Your task to perform on an android device: Who is the prime minister of the United Kingdom? Image 0: 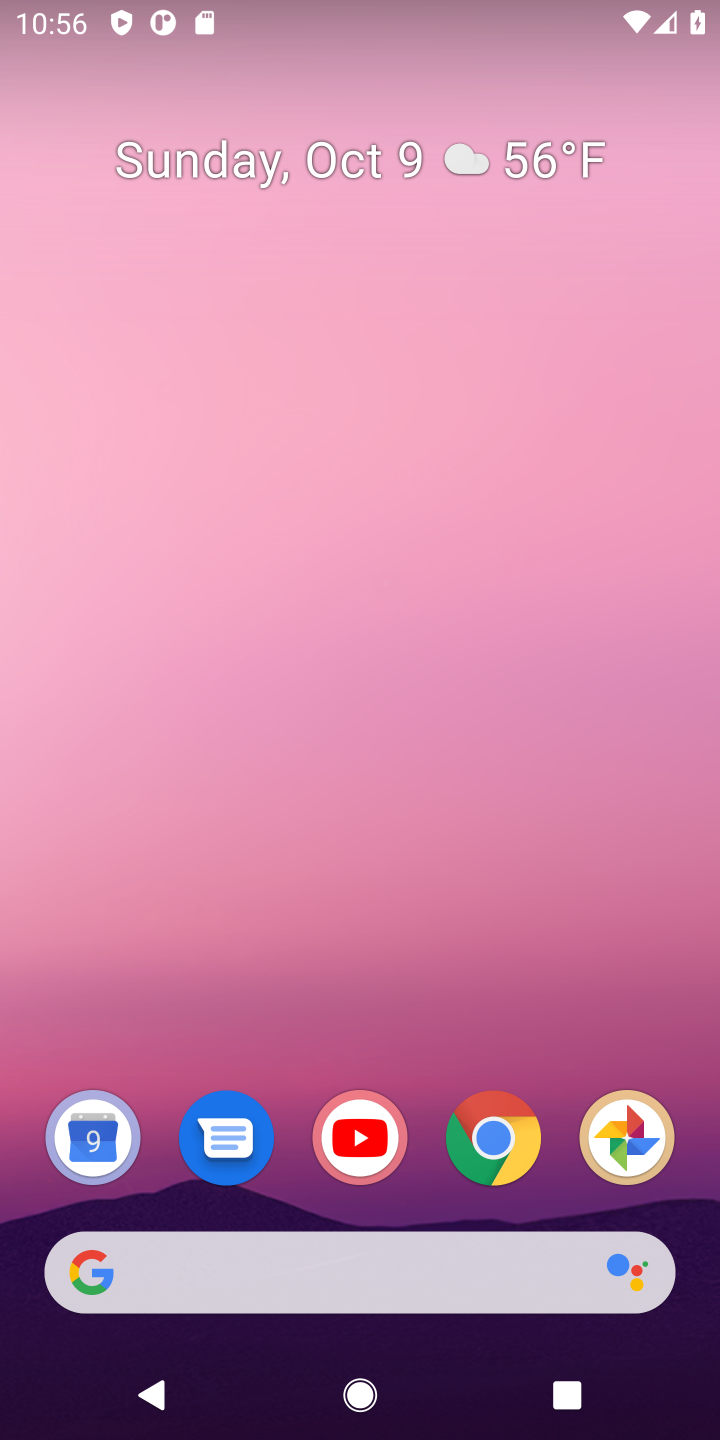
Step 0: drag from (417, 1044) to (567, 21)
Your task to perform on an android device: Who is the prime minister of the United Kingdom? Image 1: 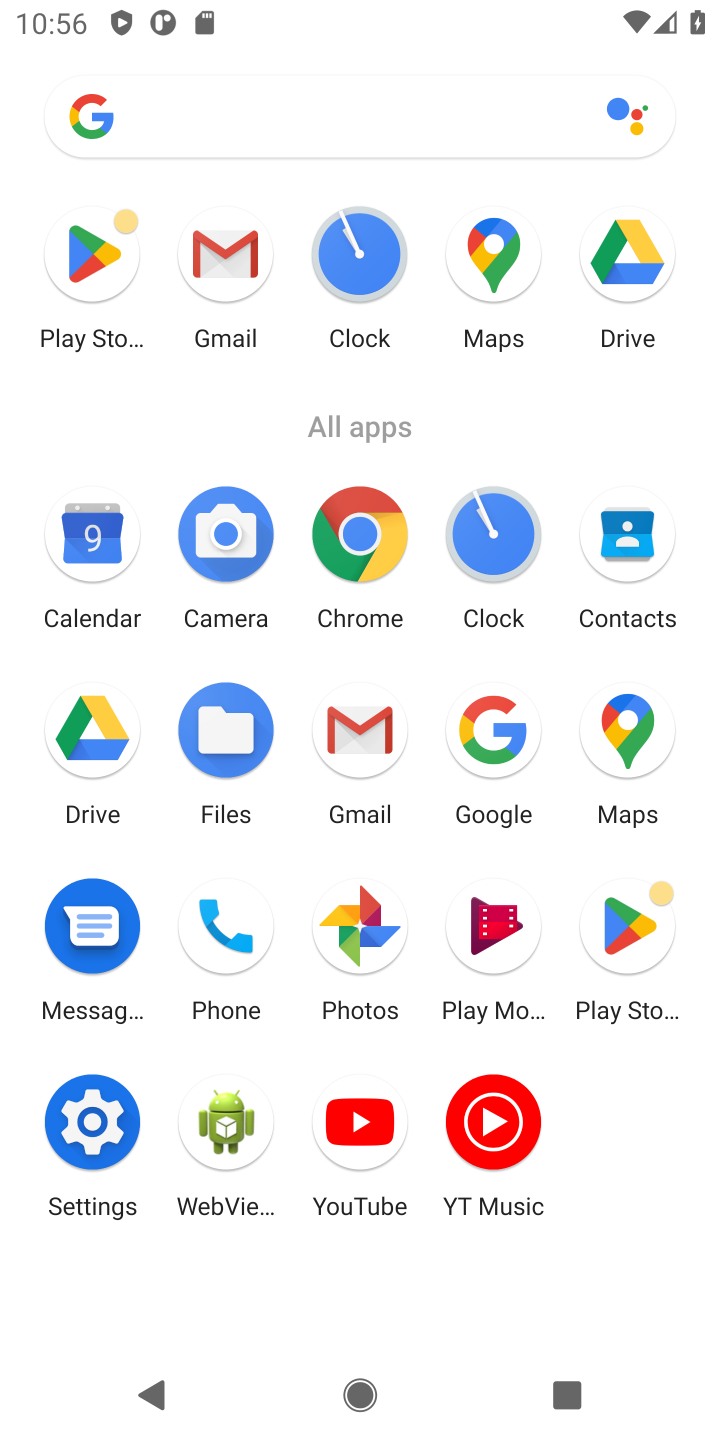
Step 1: click (357, 535)
Your task to perform on an android device: Who is the prime minister of the United Kingdom? Image 2: 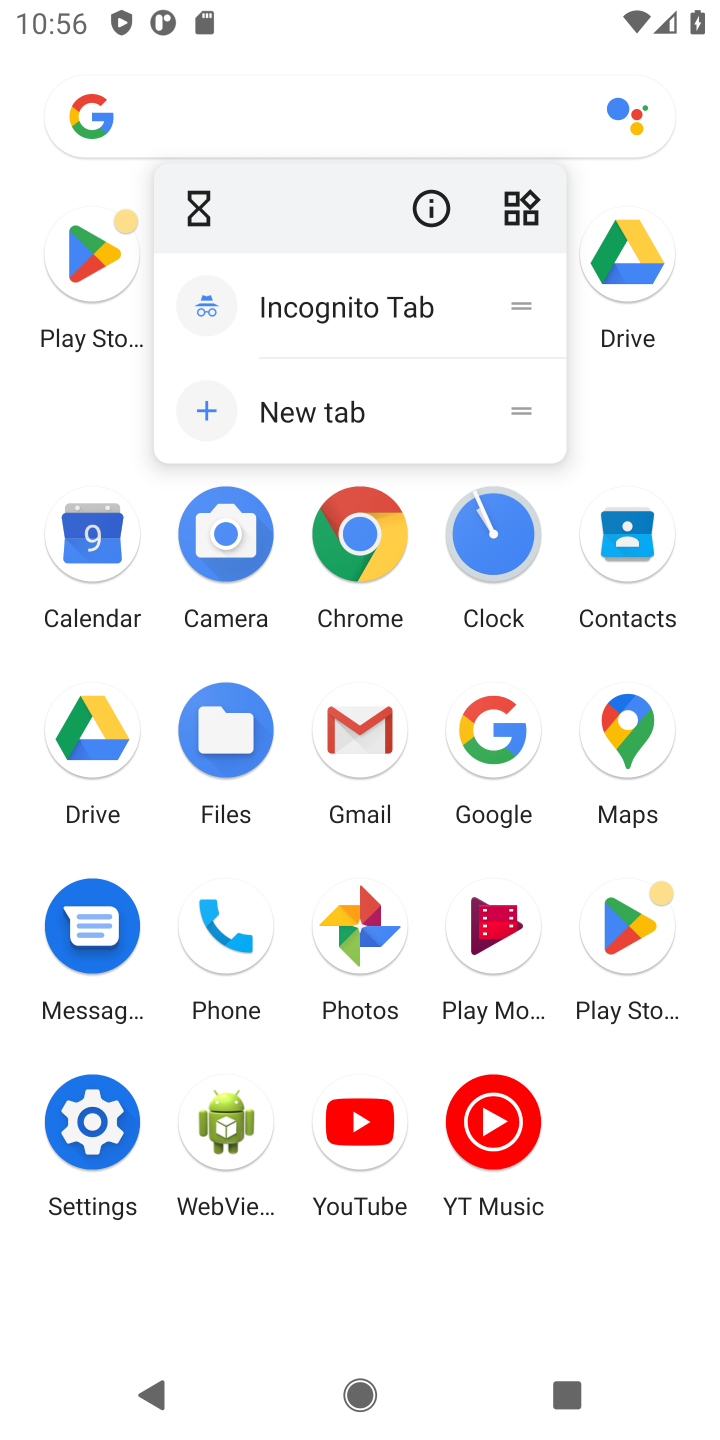
Step 2: click (357, 535)
Your task to perform on an android device: Who is the prime minister of the United Kingdom? Image 3: 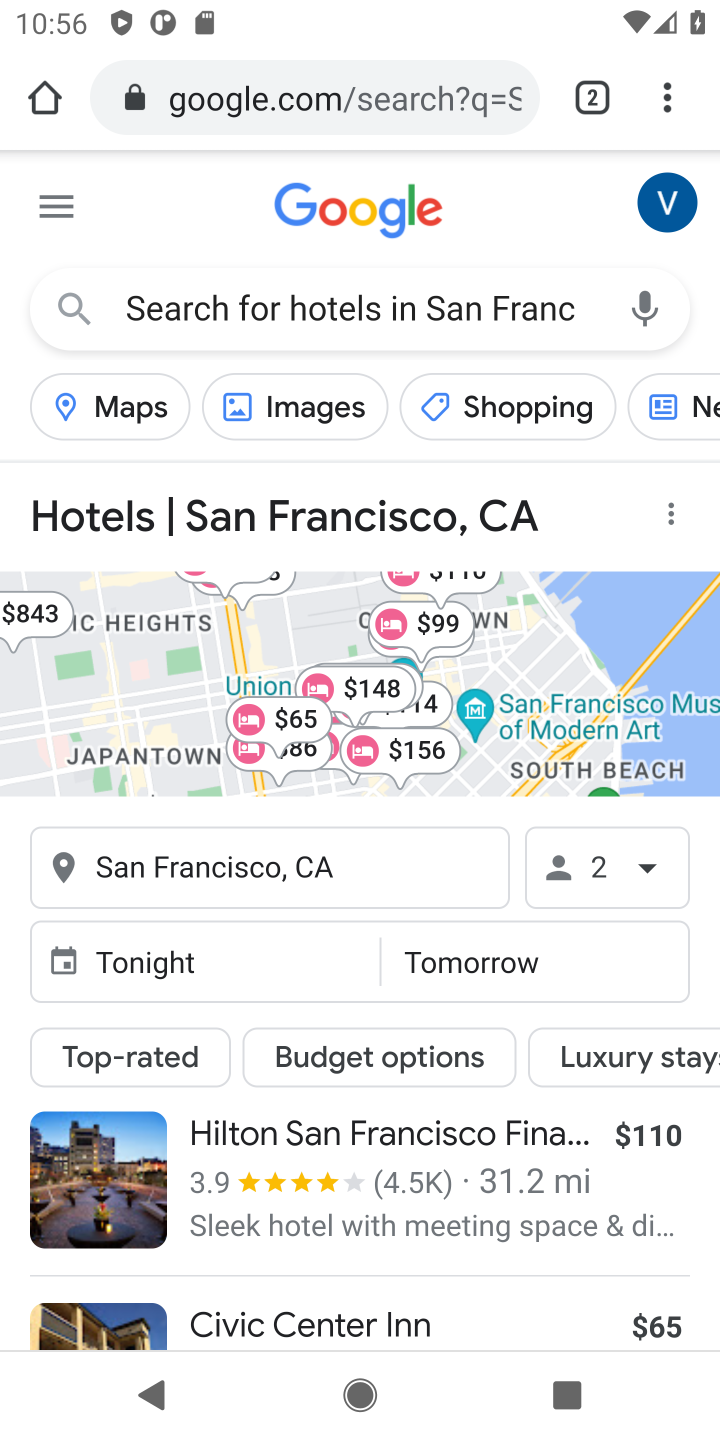
Step 3: click (311, 93)
Your task to perform on an android device: Who is the prime minister of the United Kingdom? Image 4: 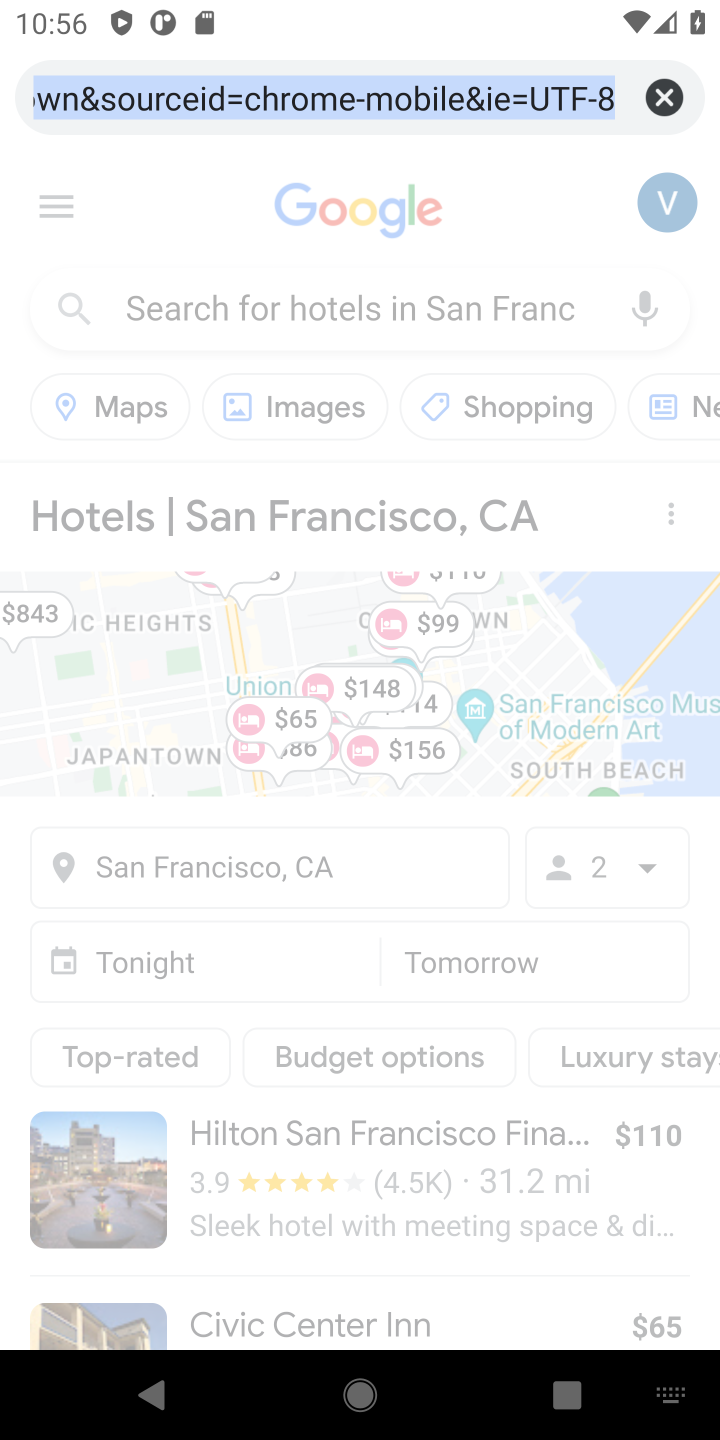
Step 4: click (659, 85)
Your task to perform on an android device: Who is the prime minister of the United Kingdom? Image 5: 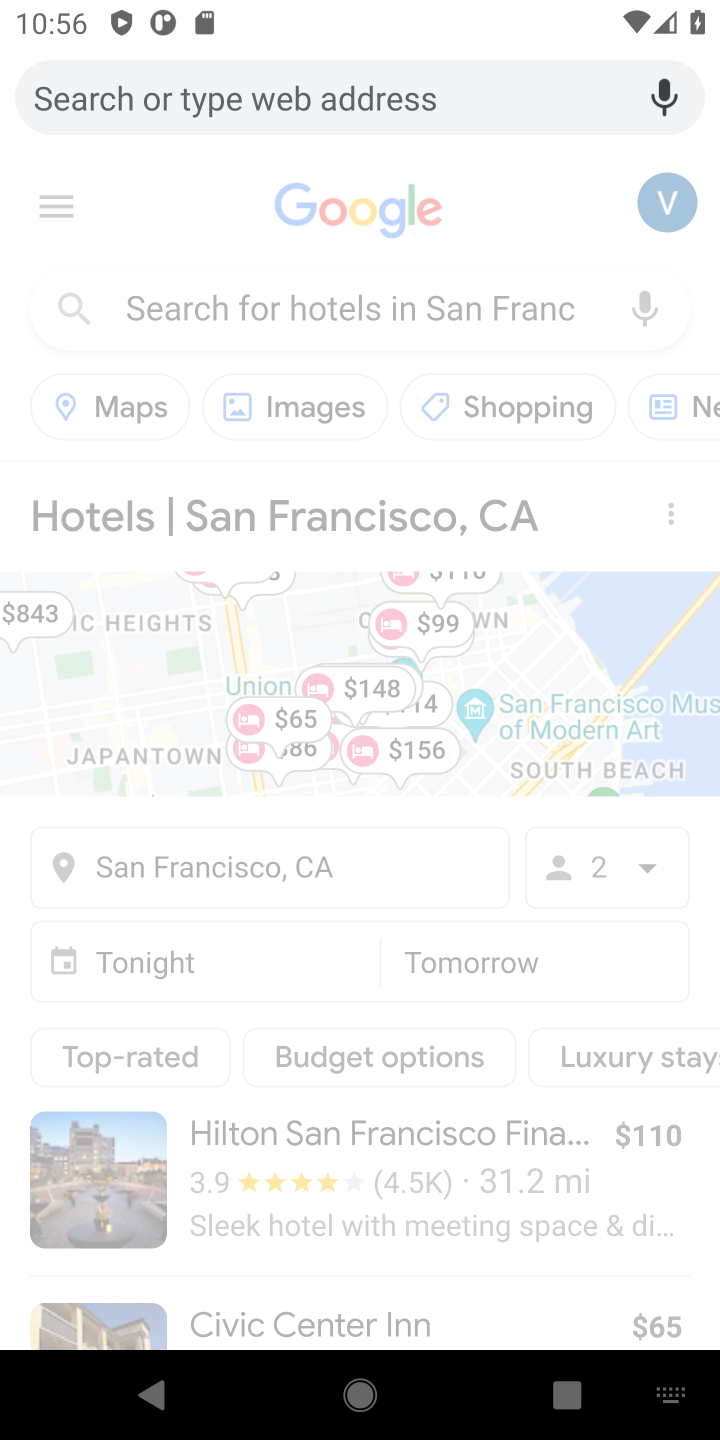
Step 5: type "Who is the prime minister of the United Kingdom?"
Your task to perform on an android device: Who is the prime minister of the United Kingdom? Image 6: 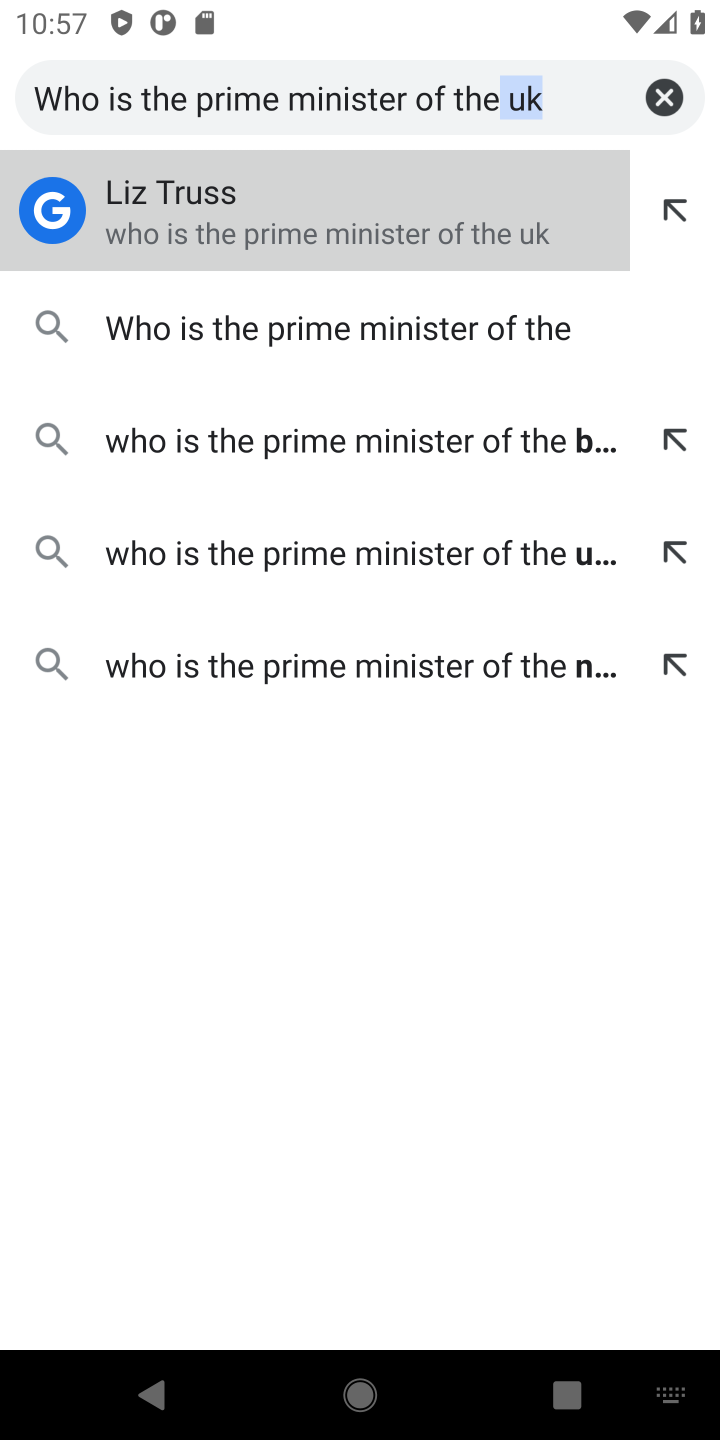
Step 6: click (170, 207)
Your task to perform on an android device: Who is the prime minister of the United Kingdom? Image 7: 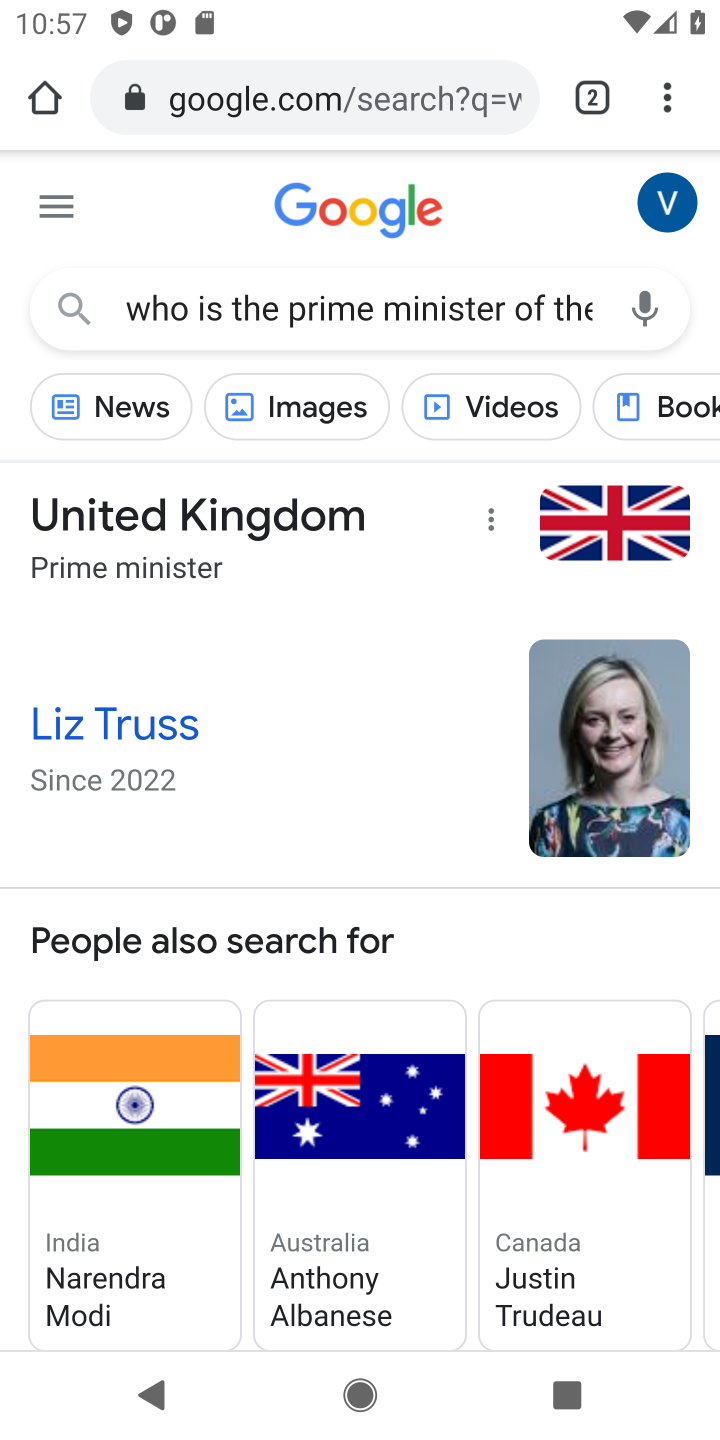
Step 7: task complete